Your task to perform on an android device: check the backup settings in the google photos Image 0: 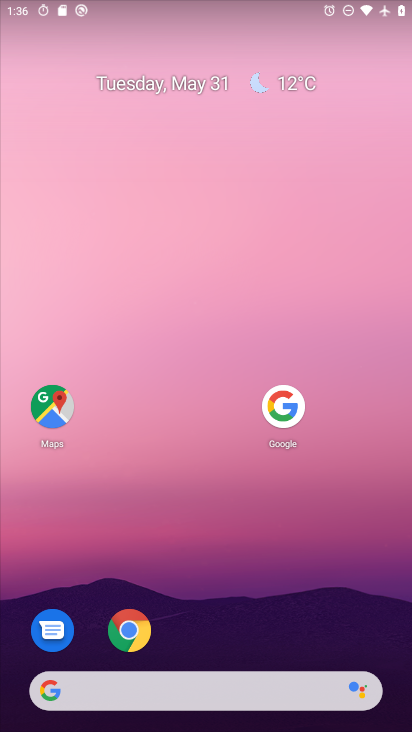
Step 0: drag from (234, 644) to (261, 98)
Your task to perform on an android device: check the backup settings in the google photos Image 1: 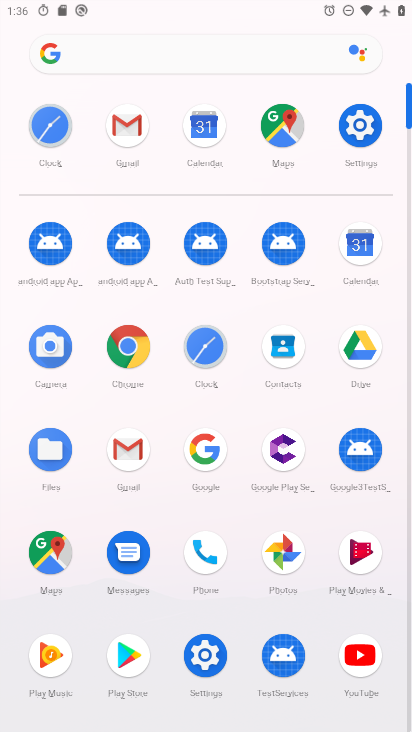
Step 1: click (283, 556)
Your task to perform on an android device: check the backup settings in the google photos Image 2: 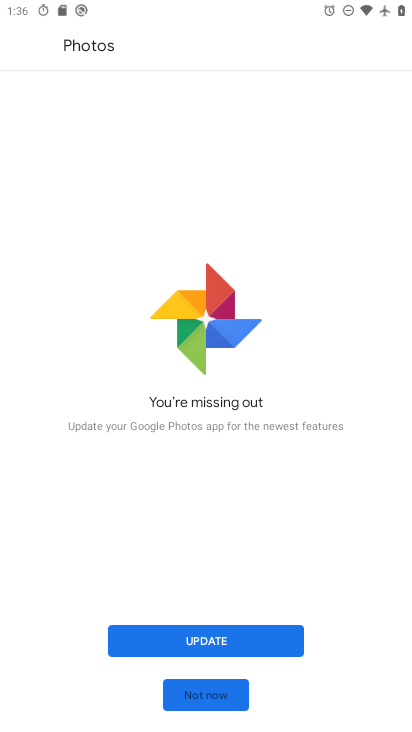
Step 2: click (213, 639)
Your task to perform on an android device: check the backup settings in the google photos Image 3: 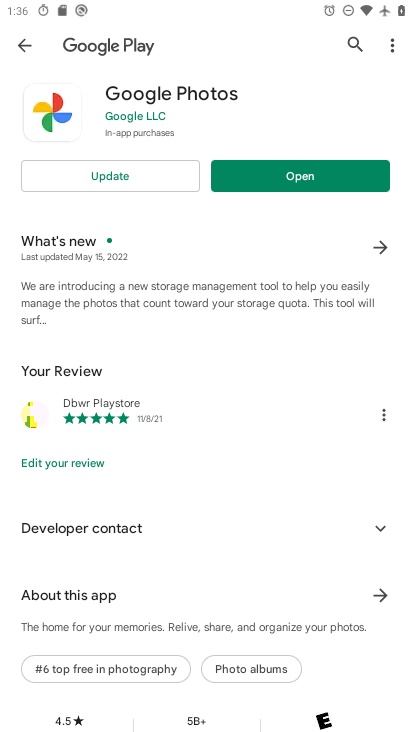
Step 3: click (144, 166)
Your task to perform on an android device: check the backup settings in the google photos Image 4: 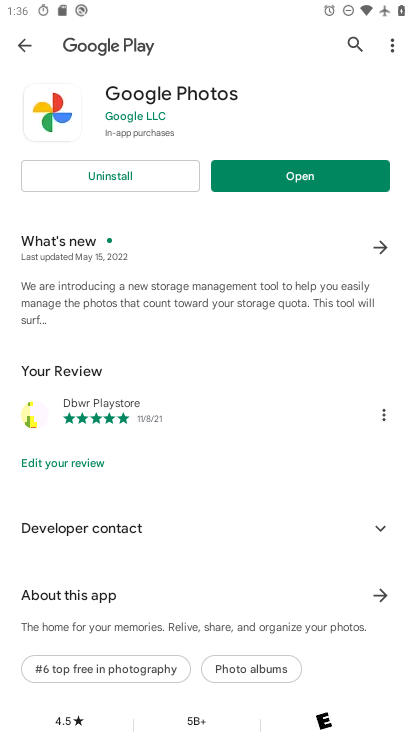
Step 4: click (312, 176)
Your task to perform on an android device: check the backup settings in the google photos Image 5: 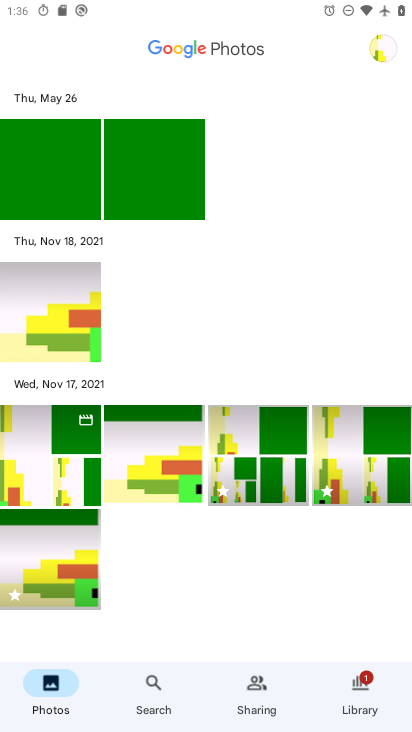
Step 5: click (377, 51)
Your task to perform on an android device: check the backup settings in the google photos Image 6: 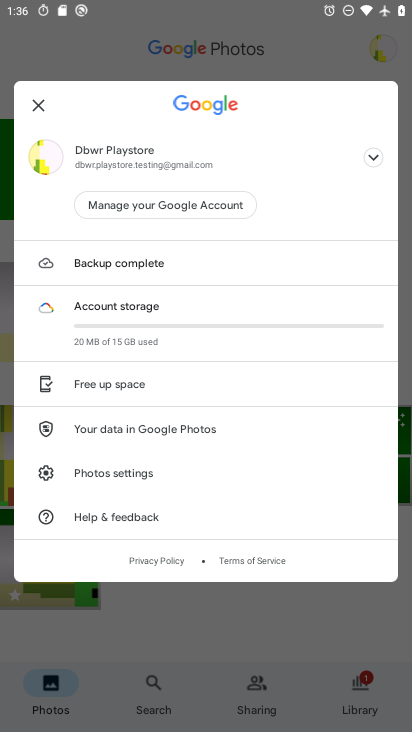
Step 6: click (123, 473)
Your task to perform on an android device: check the backup settings in the google photos Image 7: 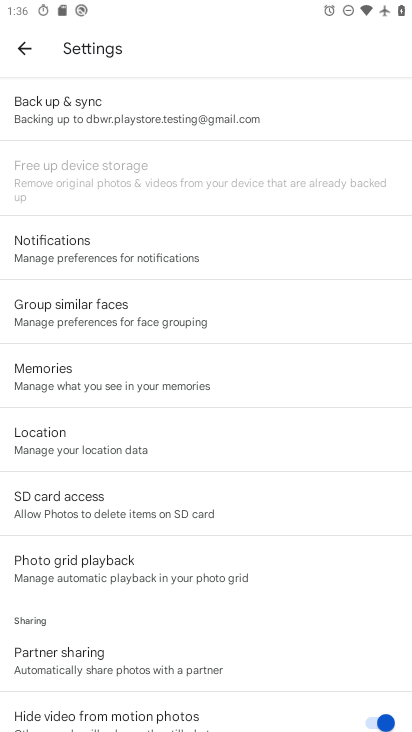
Step 7: click (146, 109)
Your task to perform on an android device: check the backup settings in the google photos Image 8: 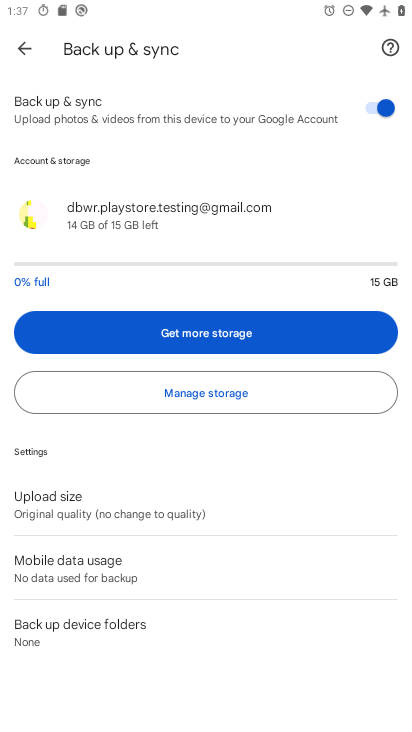
Step 8: task complete